Your task to perform on an android device: add a label to a message in the gmail app Image 0: 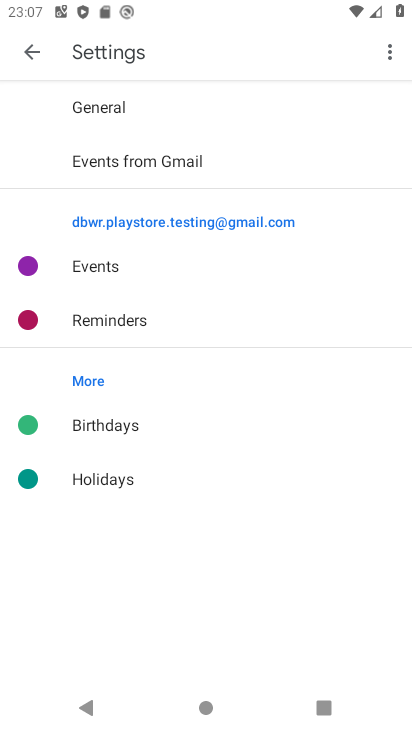
Step 0: press home button
Your task to perform on an android device: add a label to a message in the gmail app Image 1: 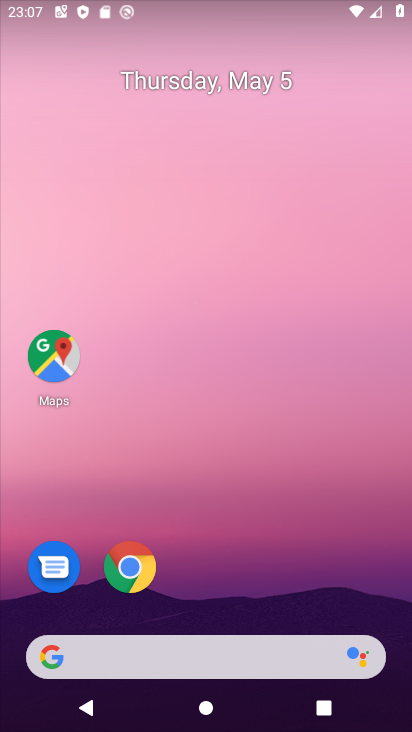
Step 1: drag from (188, 594) to (180, 239)
Your task to perform on an android device: add a label to a message in the gmail app Image 2: 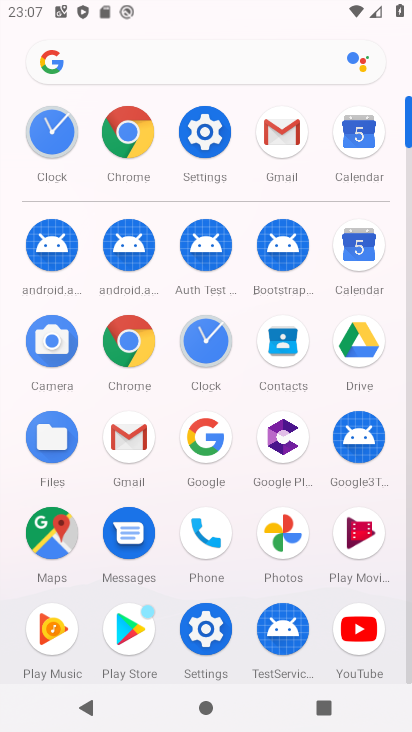
Step 2: click (293, 125)
Your task to perform on an android device: add a label to a message in the gmail app Image 3: 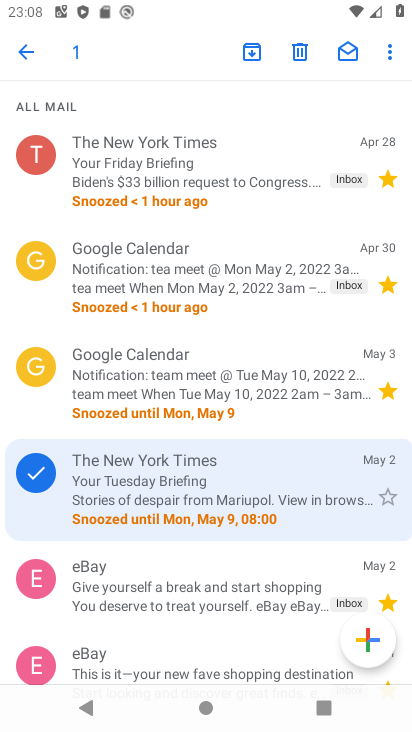
Step 3: click (120, 278)
Your task to perform on an android device: add a label to a message in the gmail app Image 4: 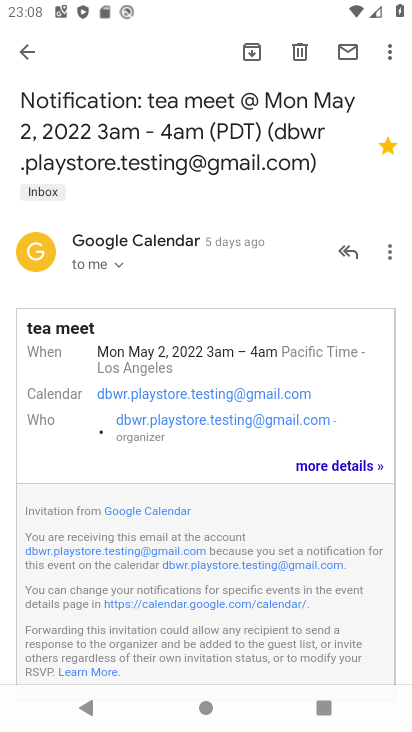
Step 4: click (381, 247)
Your task to perform on an android device: add a label to a message in the gmail app Image 5: 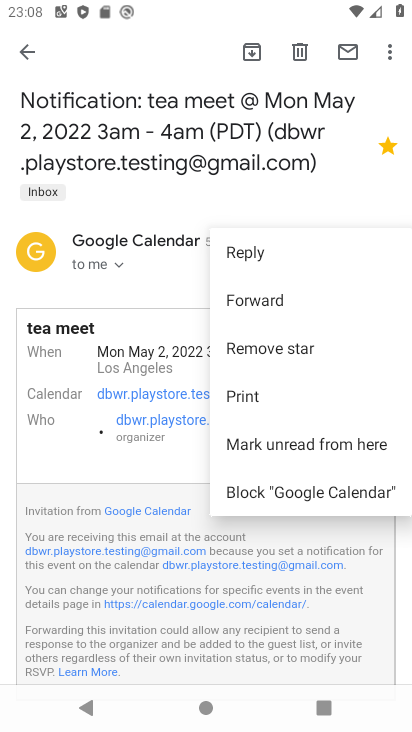
Step 5: click (137, 203)
Your task to perform on an android device: add a label to a message in the gmail app Image 6: 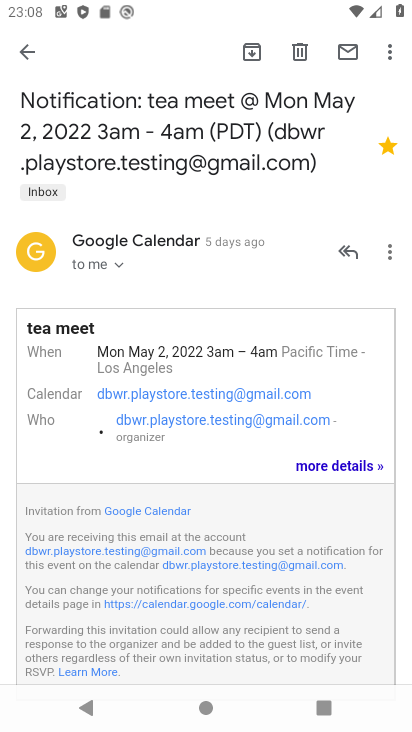
Step 6: drag from (188, 606) to (148, 206)
Your task to perform on an android device: add a label to a message in the gmail app Image 7: 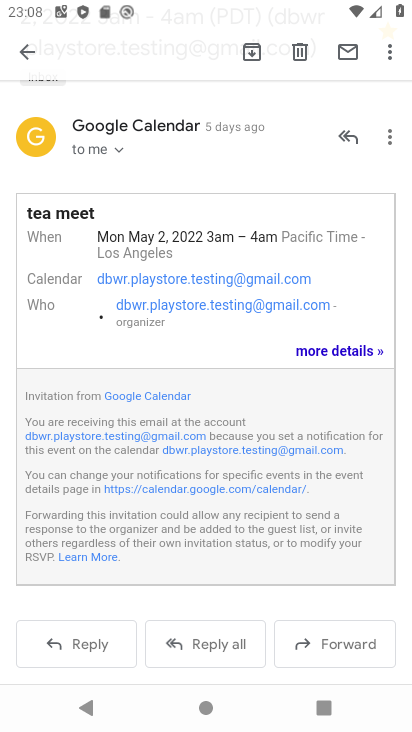
Step 7: click (210, 517)
Your task to perform on an android device: add a label to a message in the gmail app Image 8: 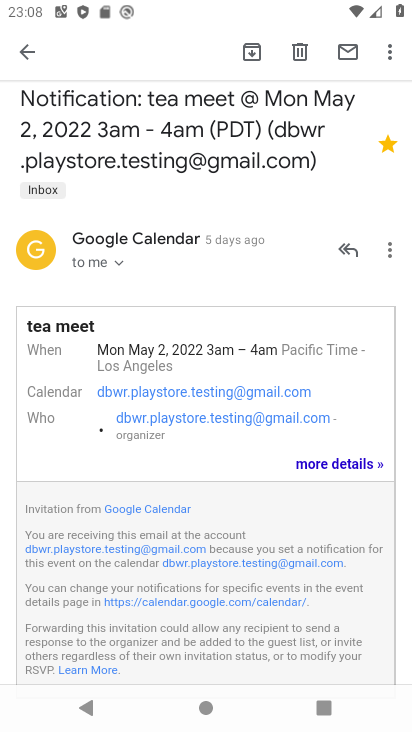
Step 8: click (383, 57)
Your task to perform on an android device: add a label to a message in the gmail app Image 9: 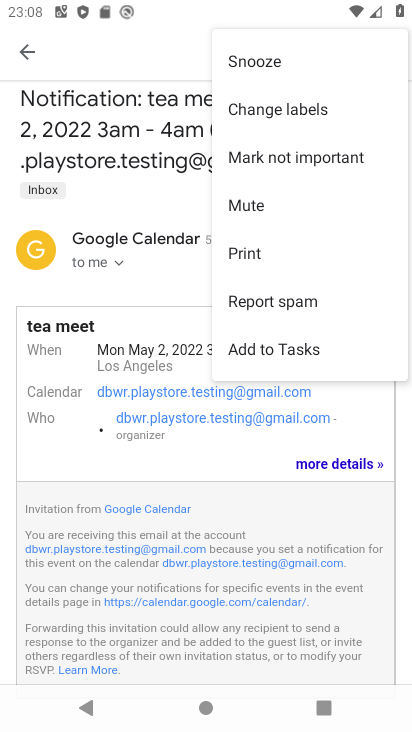
Step 9: click (147, 286)
Your task to perform on an android device: add a label to a message in the gmail app Image 10: 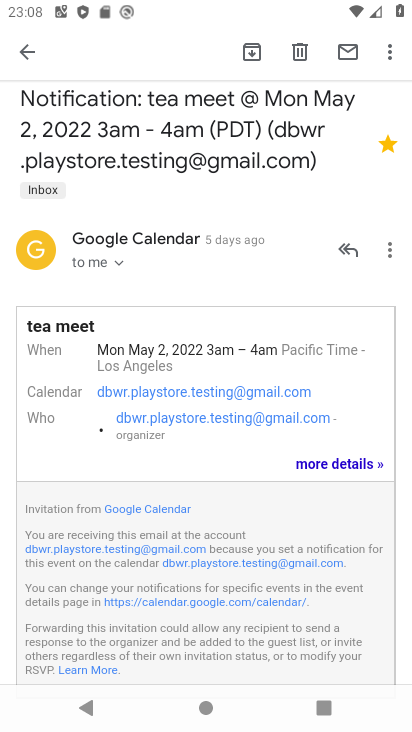
Step 10: click (114, 256)
Your task to perform on an android device: add a label to a message in the gmail app Image 11: 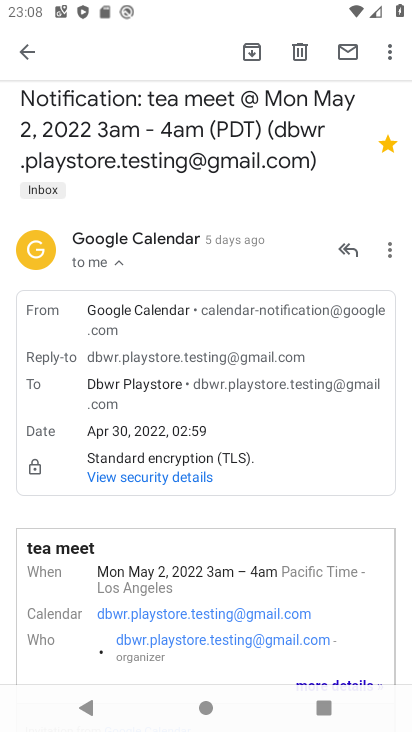
Step 11: click (180, 209)
Your task to perform on an android device: add a label to a message in the gmail app Image 12: 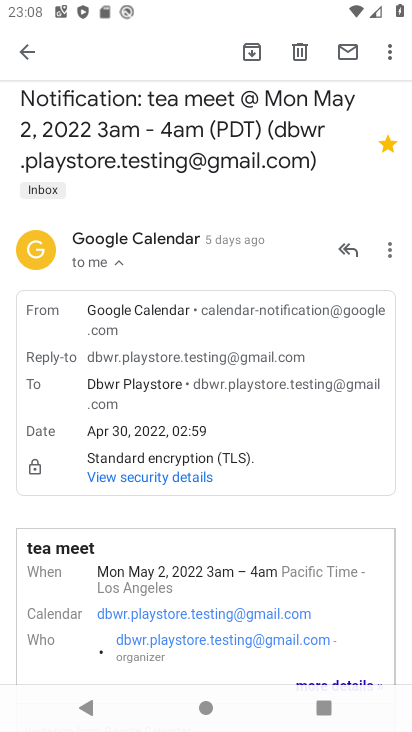
Step 12: click (24, 59)
Your task to perform on an android device: add a label to a message in the gmail app Image 13: 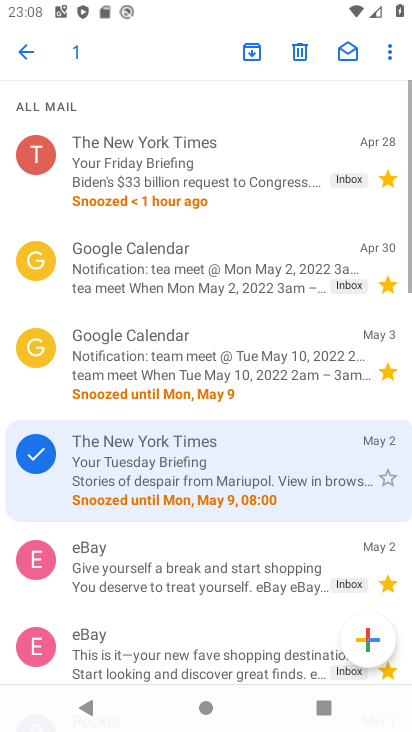
Step 13: click (47, 447)
Your task to perform on an android device: add a label to a message in the gmail app Image 14: 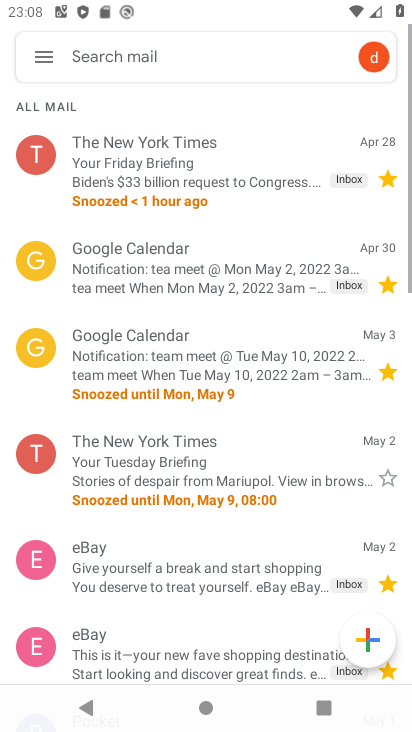
Step 14: click (142, 345)
Your task to perform on an android device: add a label to a message in the gmail app Image 15: 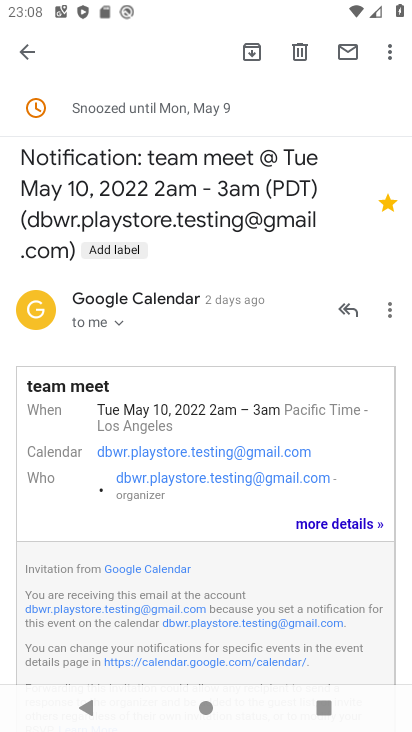
Step 15: click (135, 247)
Your task to perform on an android device: add a label to a message in the gmail app Image 16: 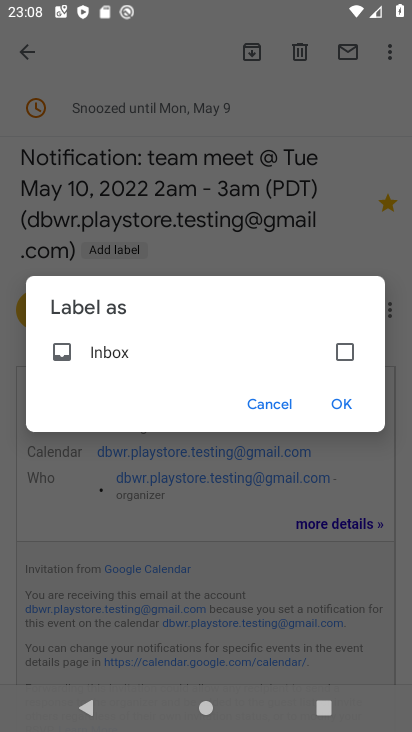
Step 16: click (345, 350)
Your task to perform on an android device: add a label to a message in the gmail app Image 17: 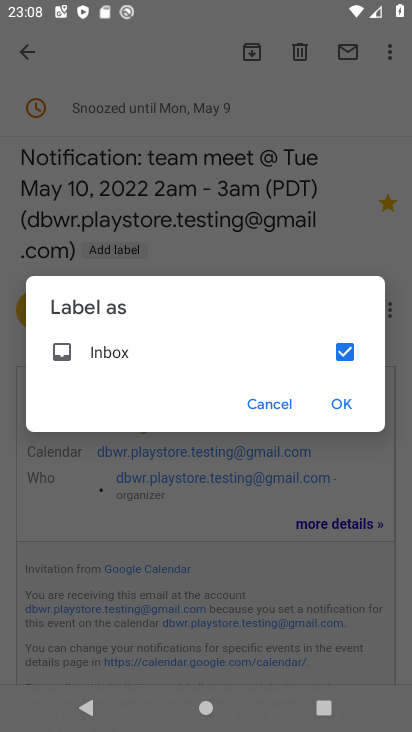
Step 17: click (341, 407)
Your task to perform on an android device: add a label to a message in the gmail app Image 18: 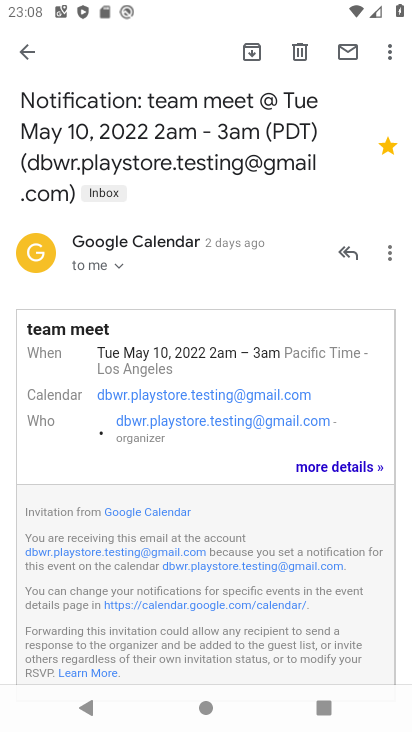
Step 18: task complete